Your task to perform on an android device: Open battery settings Image 0: 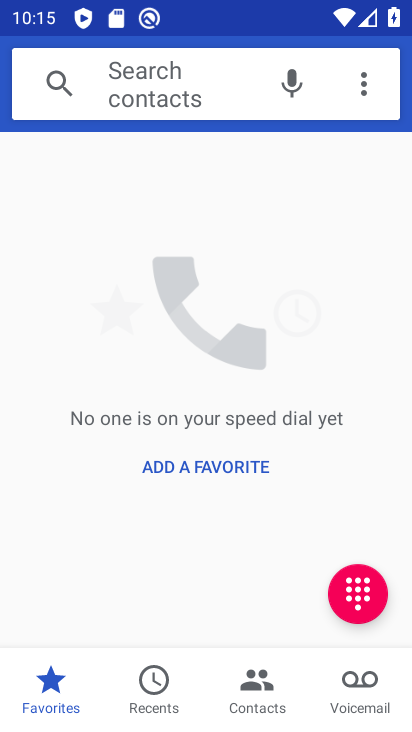
Step 0: press home button
Your task to perform on an android device: Open battery settings Image 1: 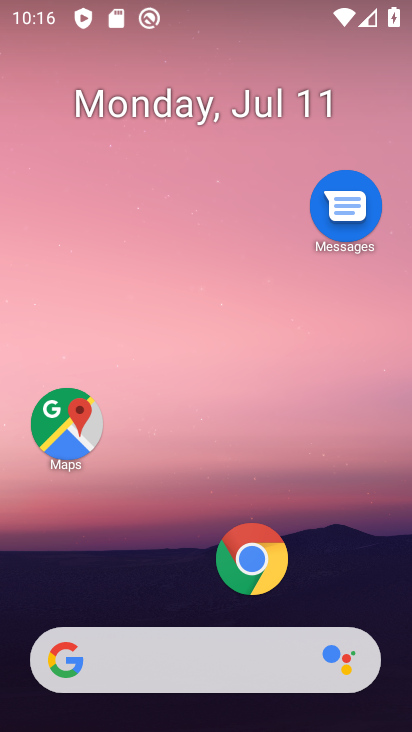
Step 1: drag from (361, 567) to (340, 181)
Your task to perform on an android device: Open battery settings Image 2: 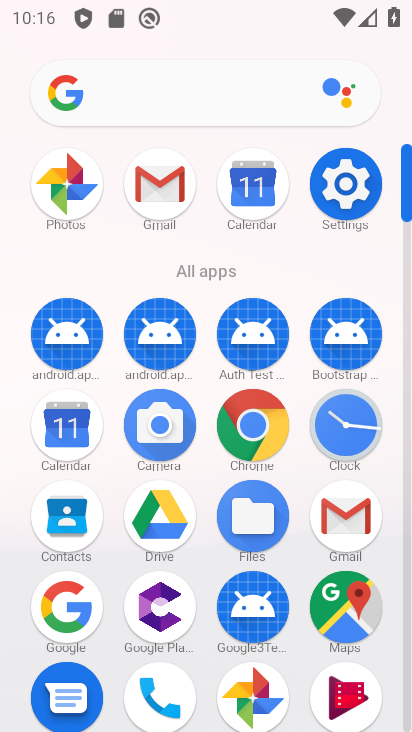
Step 2: click (344, 186)
Your task to perform on an android device: Open battery settings Image 3: 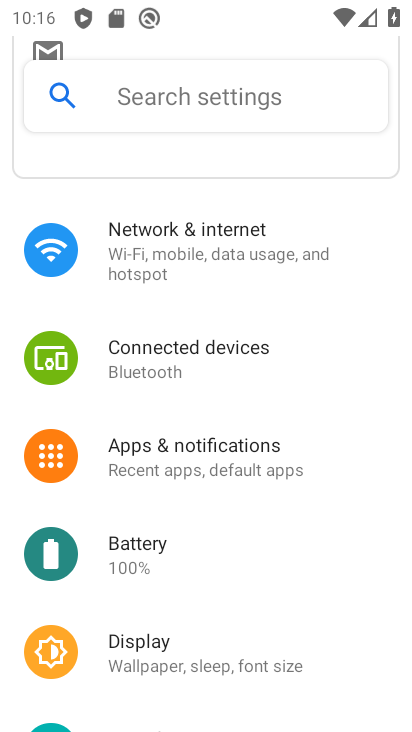
Step 3: drag from (356, 547) to (354, 277)
Your task to perform on an android device: Open battery settings Image 4: 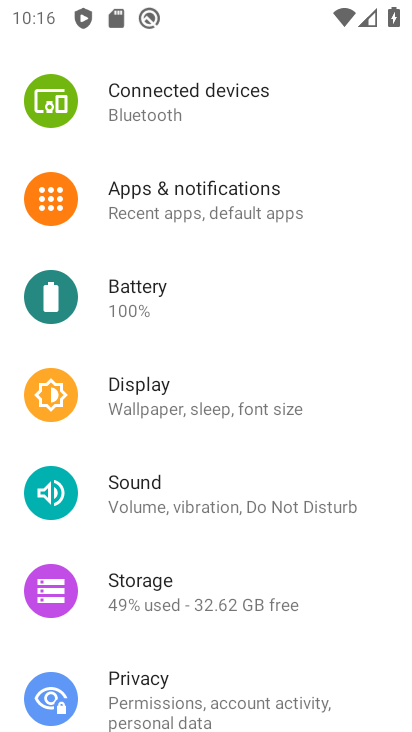
Step 4: drag from (346, 587) to (353, 308)
Your task to perform on an android device: Open battery settings Image 5: 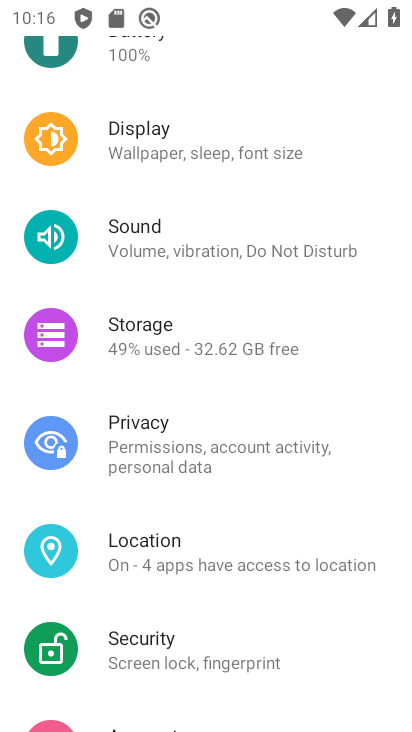
Step 5: drag from (353, 625) to (373, 253)
Your task to perform on an android device: Open battery settings Image 6: 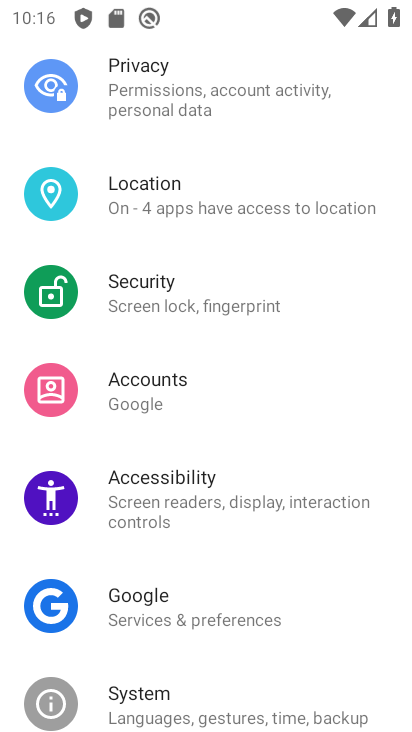
Step 6: drag from (296, 597) to (327, 405)
Your task to perform on an android device: Open battery settings Image 7: 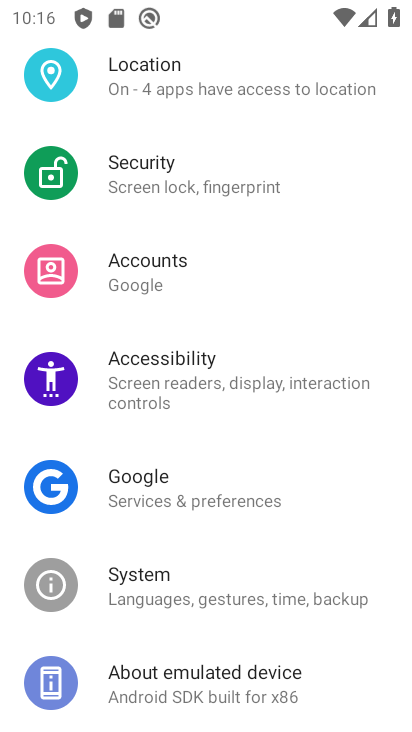
Step 7: drag from (346, 275) to (350, 399)
Your task to perform on an android device: Open battery settings Image 8: 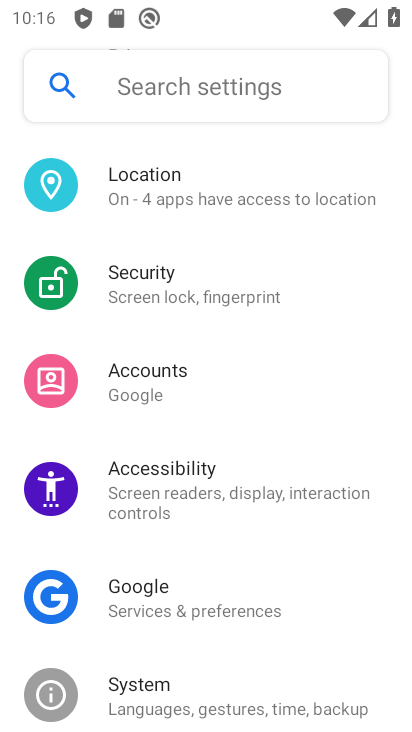
Step 8: drag from (347, 295) to (346, 390)
Your task to perform on an android device: Open battery settings Image 9: 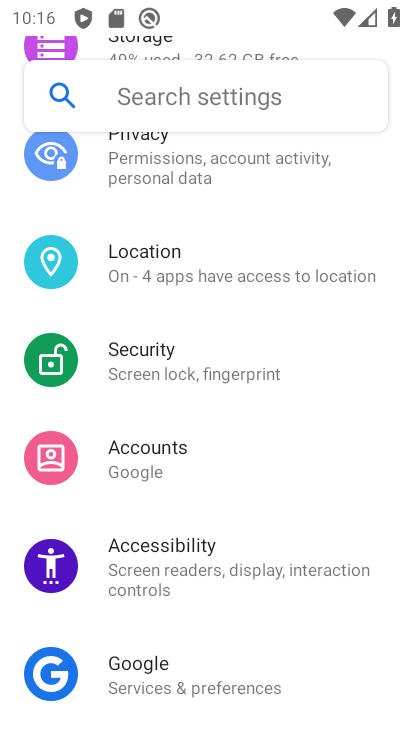
Step 9: drag from (343, 319) to (326, 486)
Your task to perform on an android device: Open battery settings Image 10: 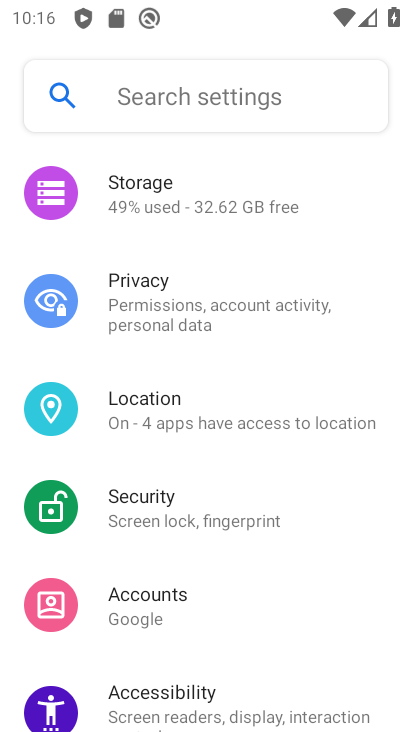
Step 10: drag from (338, 366) to (340, 487)
Your task to perform on an android device: Open battery settings Image 11: 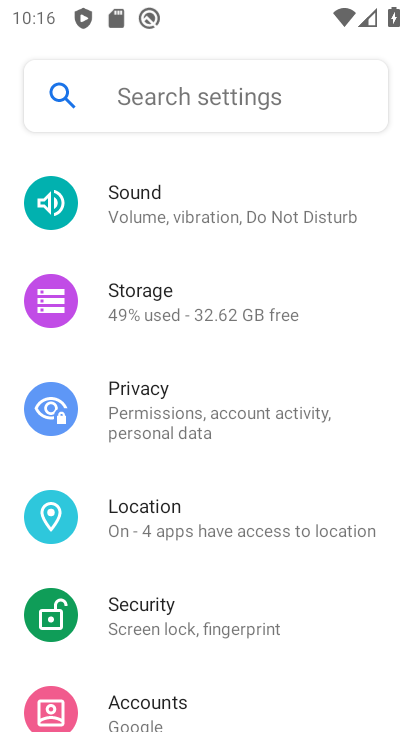
Step 11: drag from (362, 318) to (363, 466)
Your task to perform on an android device: Open battery settings Image 12: 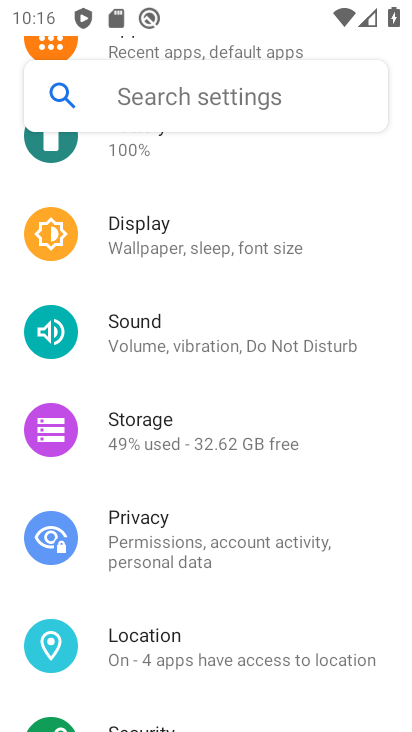
Step 12: drag from (383, 316) to (381, 434)
Your task to perform on an android device: Open battery settings Image 13: 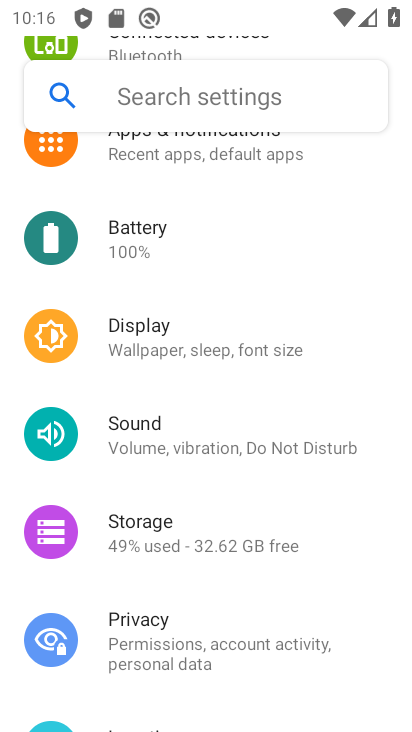
Step 13: drag from (359, 312) to (348, 440)
Your task to perform on an android device: Open battery settings Image 14: 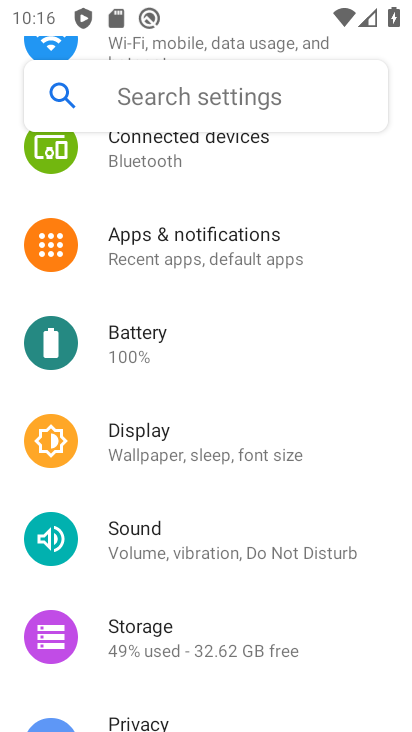
Step 14: click (289, 347)
Your task to perform on an android device: Open battery settings Image 15: 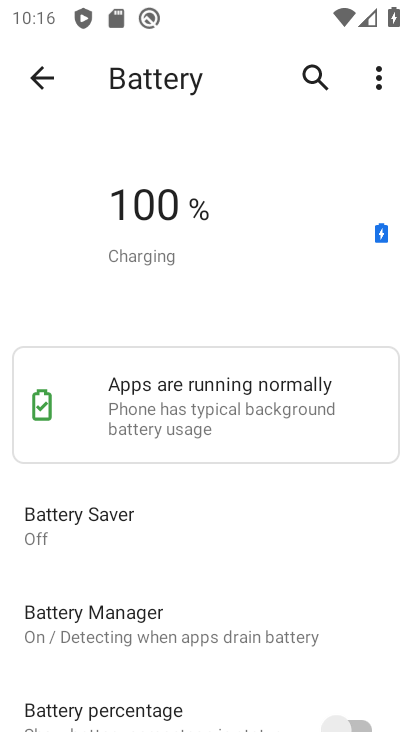
Step 15: task complete